Your task to perform on an android device: Search for seafood restaurants on Google Maps Image 0: 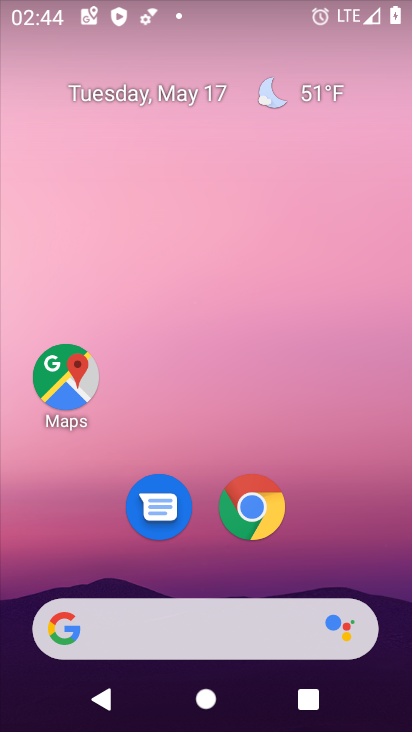
Step 0: drag from (194, 587) to (263, 103)
Your task to perform on an android device: Search for seafood restaurants on Google Maps Image 1: 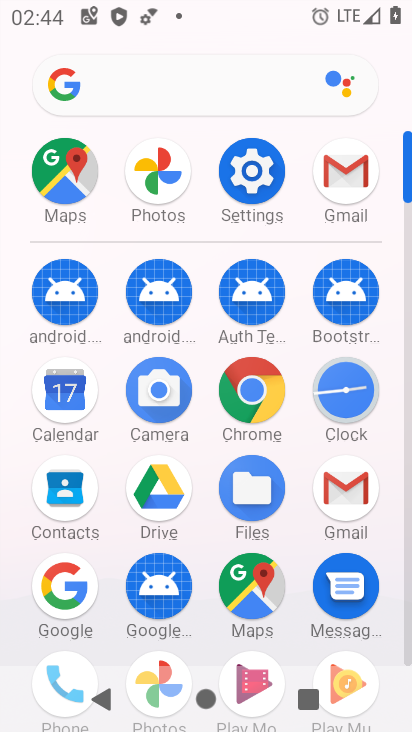
Step 1: click (68, 173)
Your task to perform on an android device: Search for seafood restaurants on Google Maps Image 2: 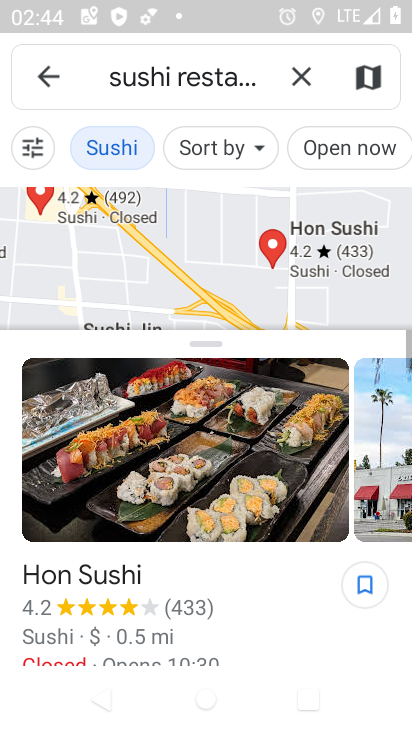
Step 2: click (298, 69)
Your task to perform on an android device: Search for seafood restaurants on Google Maps Image 3: 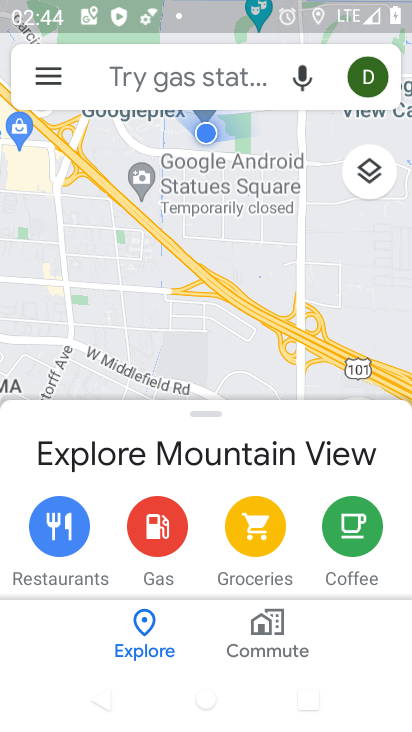
Step 3: click (191, 73)
Your task to perform on an android device: Search for seafood restaurants on Google Maps Image 4: 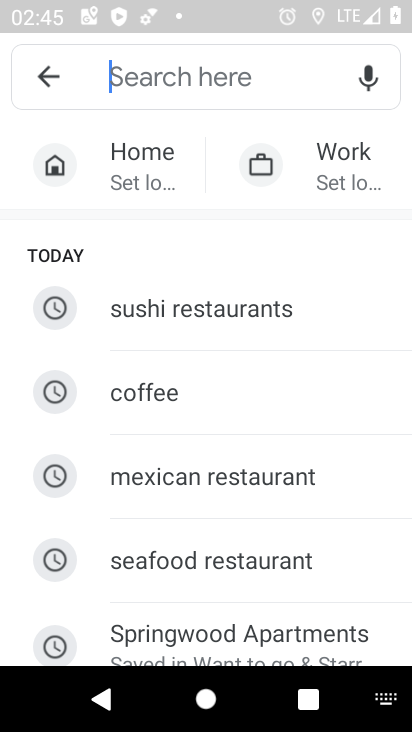
Step 4: type "seafood restaurant"
Your task to perform on an android device: Search for seafood restaurants on Google Maps Image 5: 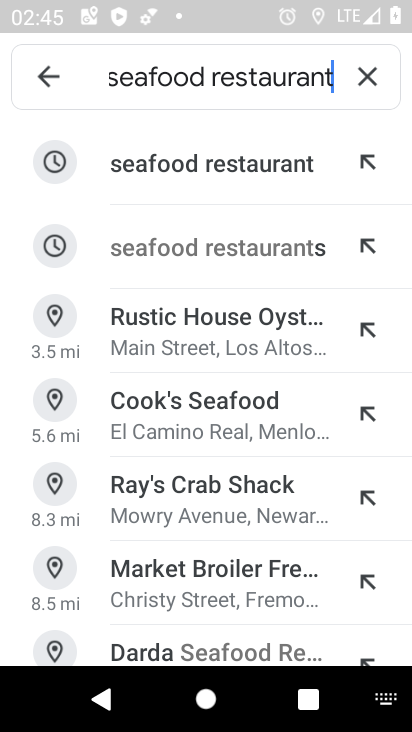
Step 5: click (214, 151)
Your task to perform on an android device: Search for seafood restaurants on Google Maps Image 6: 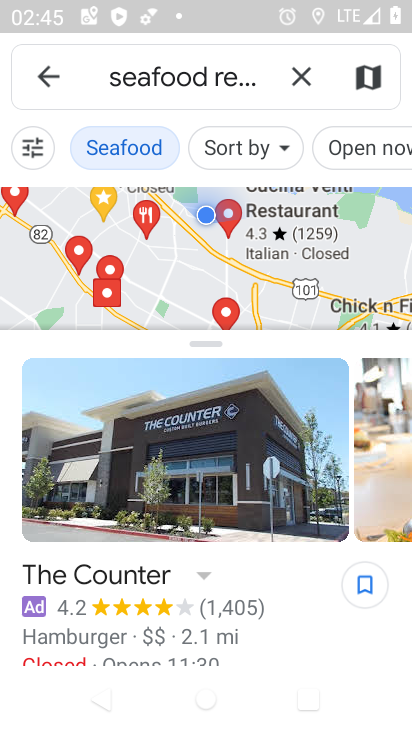
Step 6: task complete